Your task to perform on an android device: Open Google Chrome and click the shortcut for Amazon.com Image 0: 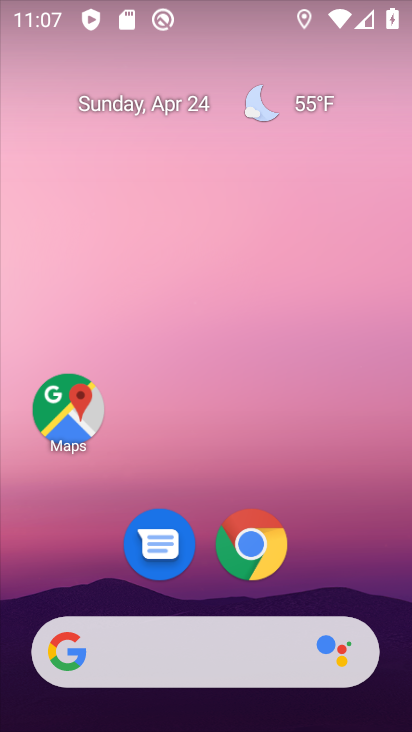
Step 0: click (258, 563)
Your task to perform on an android device: Open Google Chrome and click the shortcut for Amazon.com Image 1: 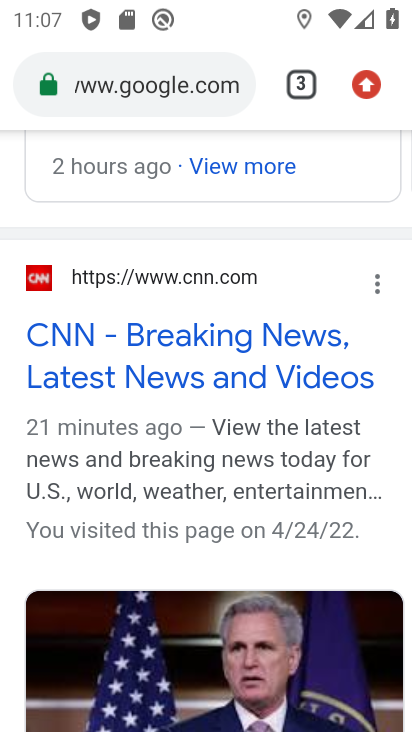
Step 1: click (294, 84)
Your task to perform on an android device: Open Google Chrome and click the shortcut for Amazon.com Image 2: 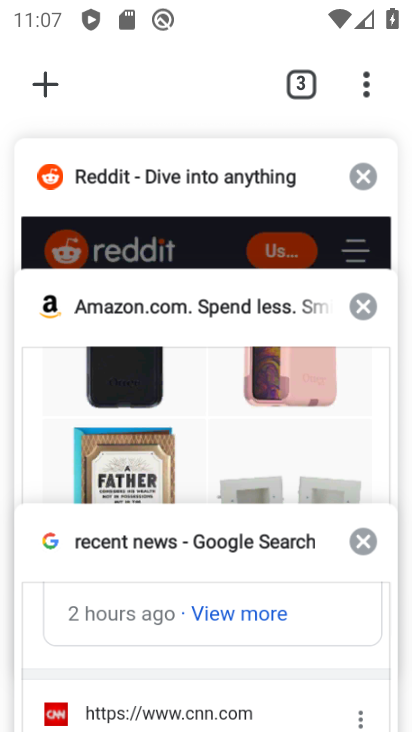
Step 2: click (121, 473)
Your task to perform on an android device: Open Google Chrome and click the shortcut for Amazon.com Image 3: 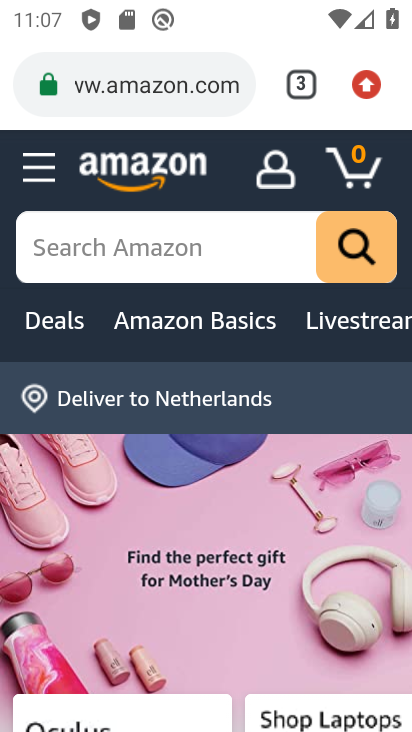
Step 3: click (300, 90)
Your task to perform on an android device: Open Google Chrome and click the shortcut for Amazon.com Image 4: 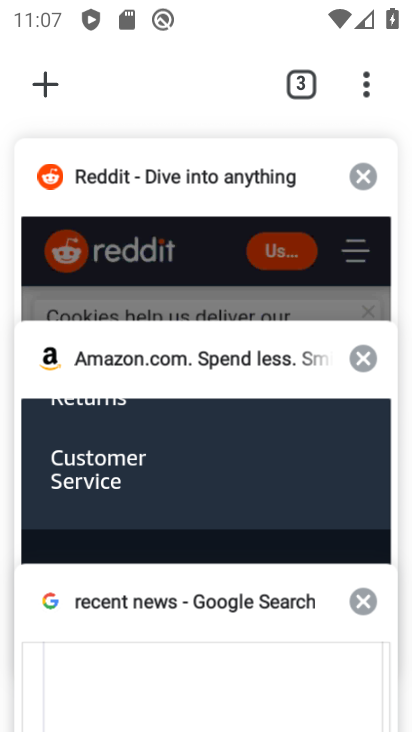
Step 4: click (48, 87)
Your task to perform on an android device: Open Google Chrome and click the shortcut for Amazon.com Image 5: 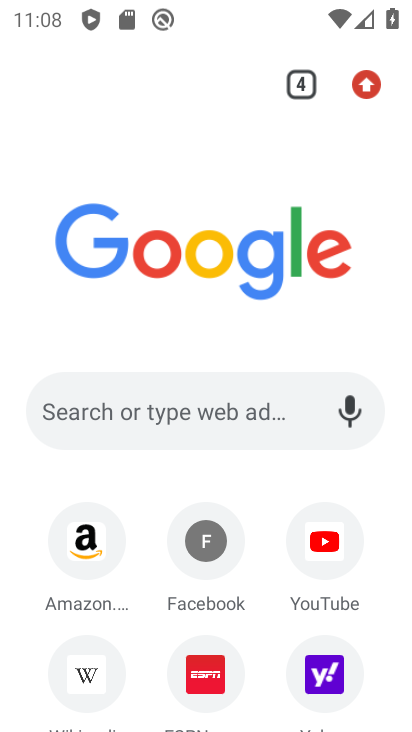
Step 5: click (81, 553)
Your task to perform on an android device: Open Google Chrome and click the shortcut for Amazon.com Image 6: 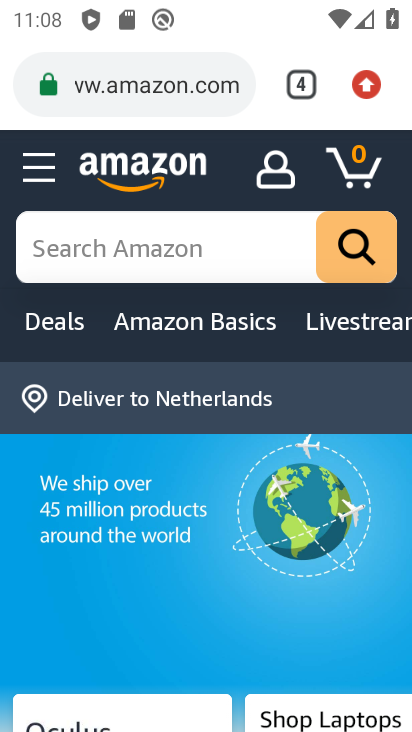
Step 6: task complete